Your task to perform on an android device: check storage Image 0: 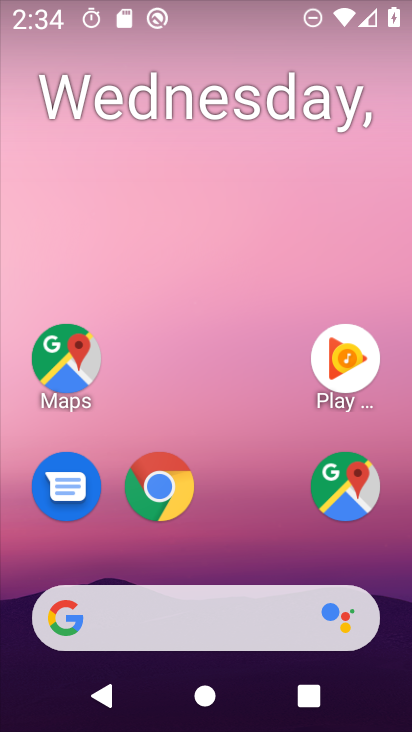
Step 0: drag from (265, 527) to (272, 63)
Your task to perform on an android device: check storage Image 1: 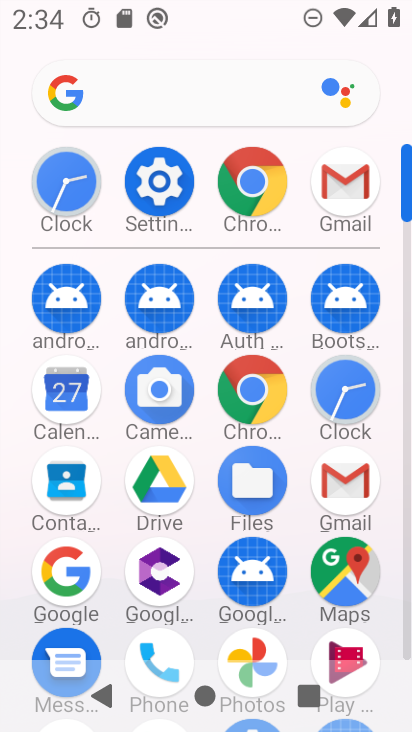
Step 1: click (177, 186)
Your task to perform on an android device: check storage Image 2: 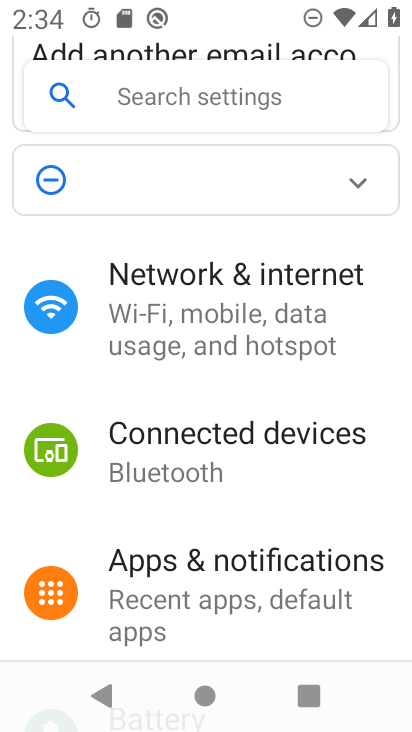
Step 2: drag from (318, 497) to (316, 395)
Your task to perform on an android device: check storage Image 3: 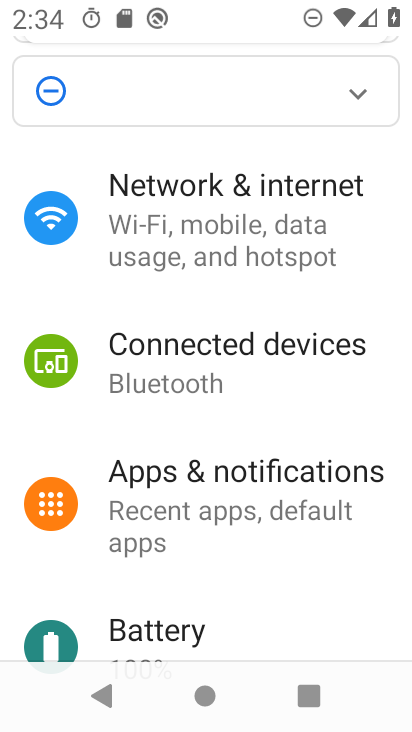
Step 3: drag from (339, 564) to (335, 470)
Your task to perform on an android device: check storage Image 4: 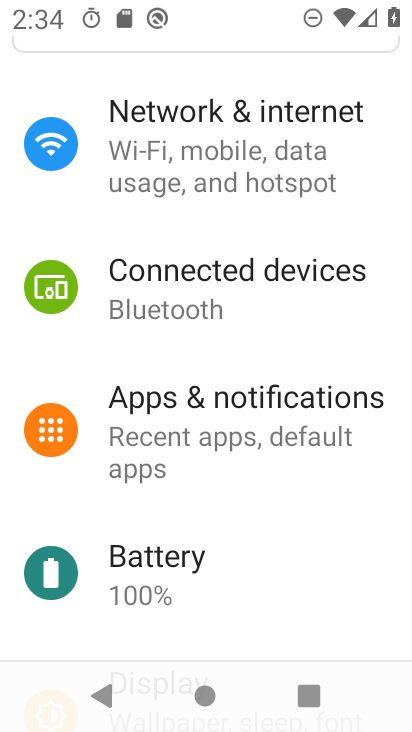
Step 4: drag from (335, 591) to (340, 480)
Your task to perform on an android device: check storage Image 5: 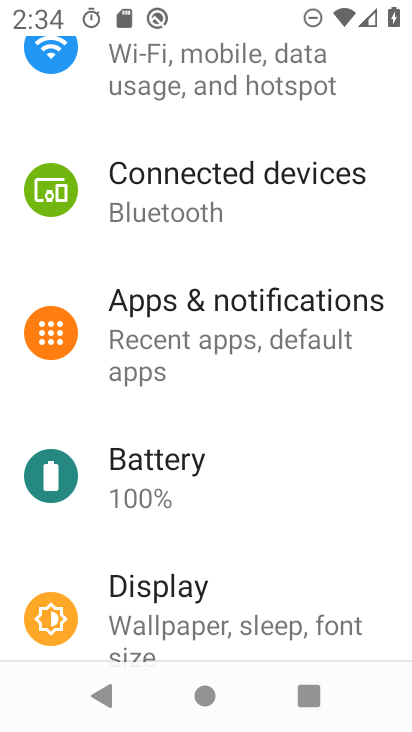
Step 5: drag from (338, 528) to (343, 458)
Your task to perform on an android device: check storage Image 6: 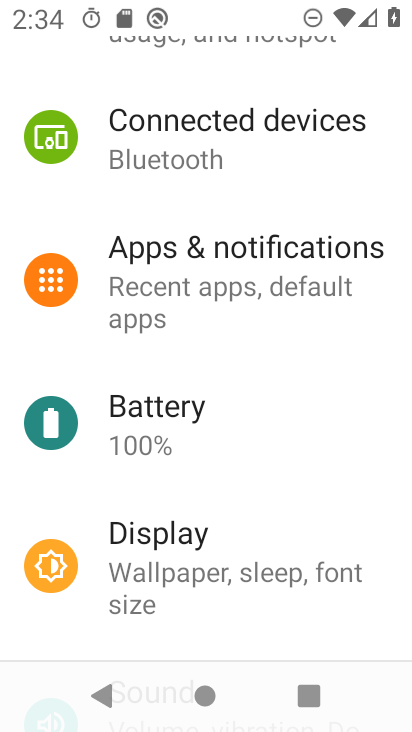
Step 6: drag from (329, 553) to (330, 468)
Your task to perform on an android device: check storage Image 7: 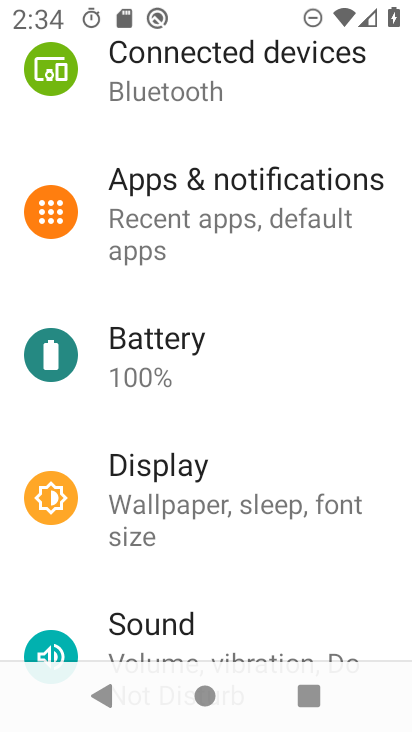
Step 7: drag from (321, 564) to (319, 489)
Your task to perform on an android device: check storage Image 8: 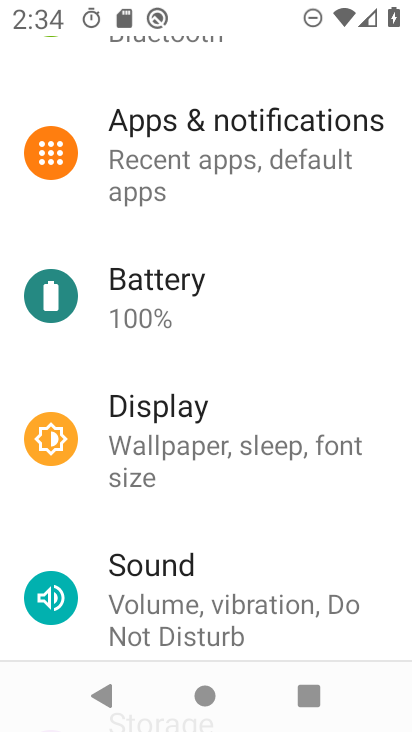
Step 8: drag from (317, 562) to (317, 442)
Your task to perform on an android device: check storage Image 9: 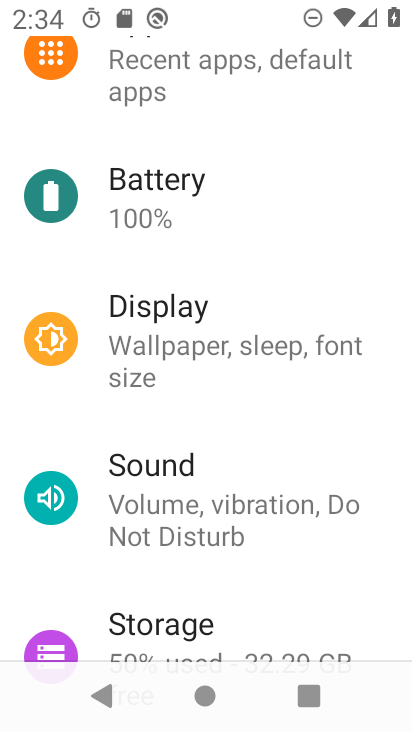
Step 9: drag from (291, 558) to (293, 383)
Your task to perform on an android device: check storage Image 10: 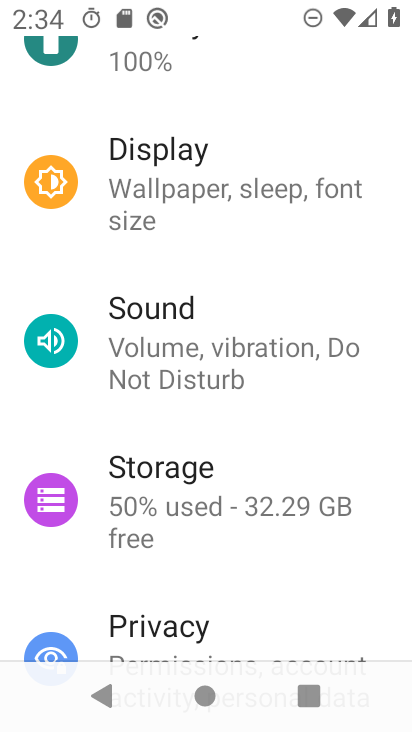
Step 10: drag from (302, 567) to (295, 432)
Your task to perform on an android device: check storage Image 11: 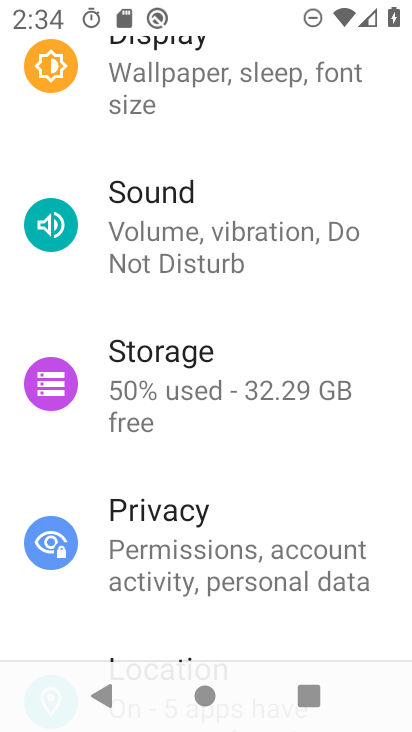
Step 11: click (304, 389)
Your task to perform on an android device: check storage Image 12: 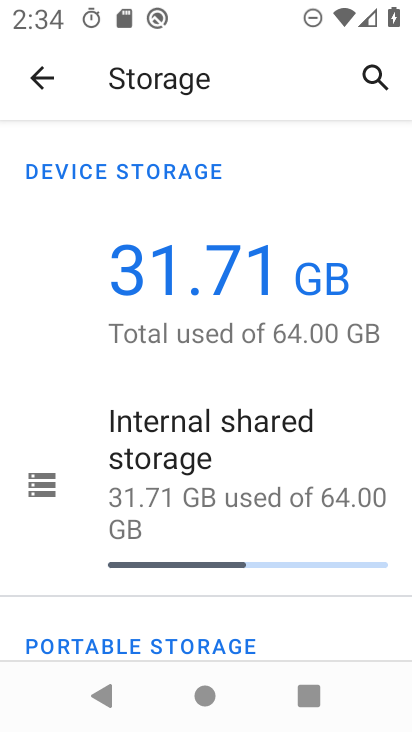
Step 12: task complete